Your task to perform on an android device: What is the news today? Image 0: 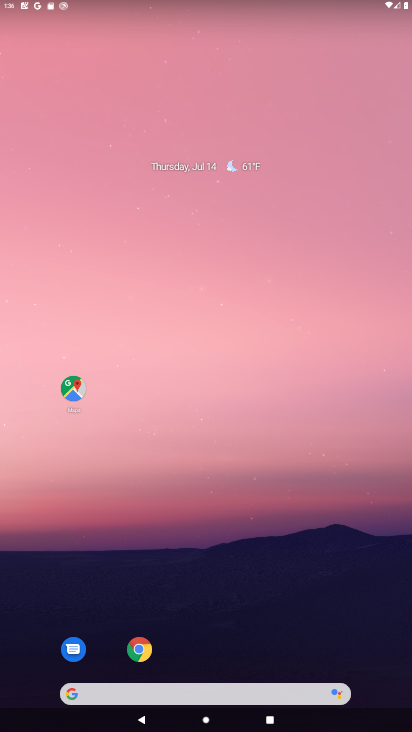
Step 0: drag from (207, 670) to (149, 39)
Your task to perform on an android device: What is the news today? Image 1: 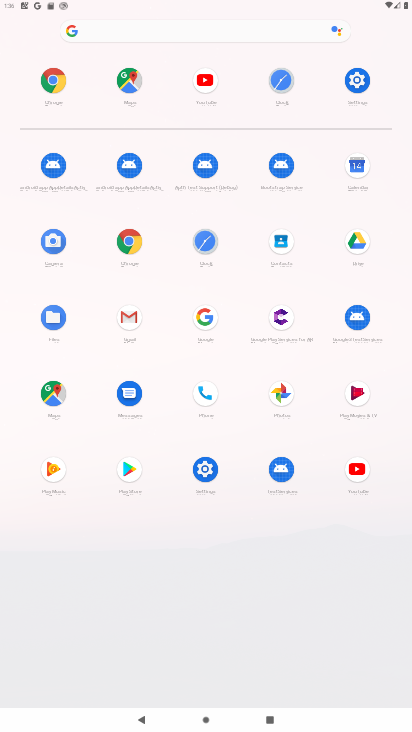
Step 1: click (141, 242)
Your task to perform on an android device: What is the news today? Image 2: 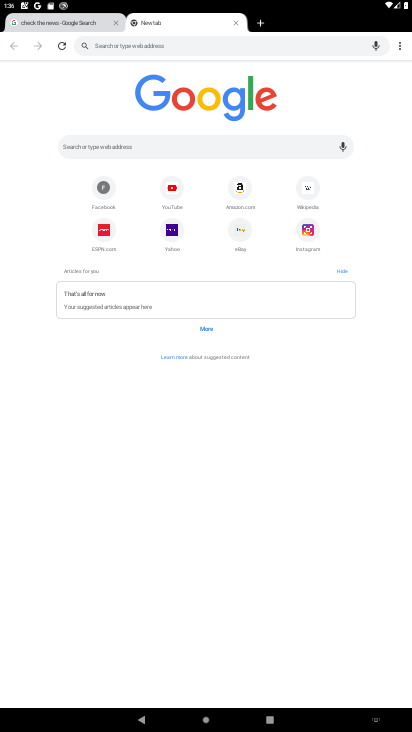
Step 2: type "news today"
Your task to perform on an android device: What is the news today? Image 3: 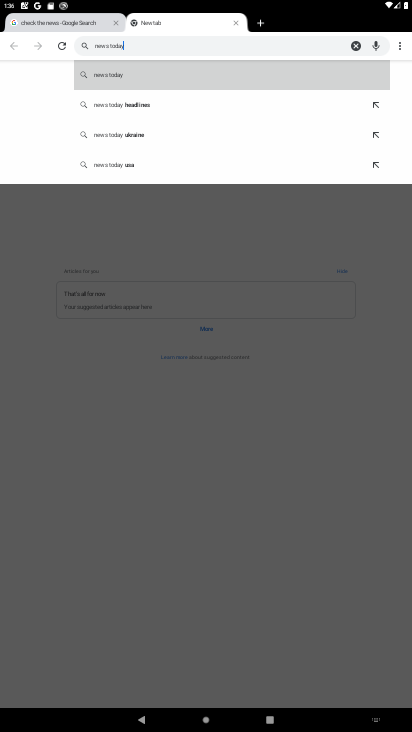
Step 3: click (140, 78)
Your task to perform on an android device: What is the news today? Image 4: 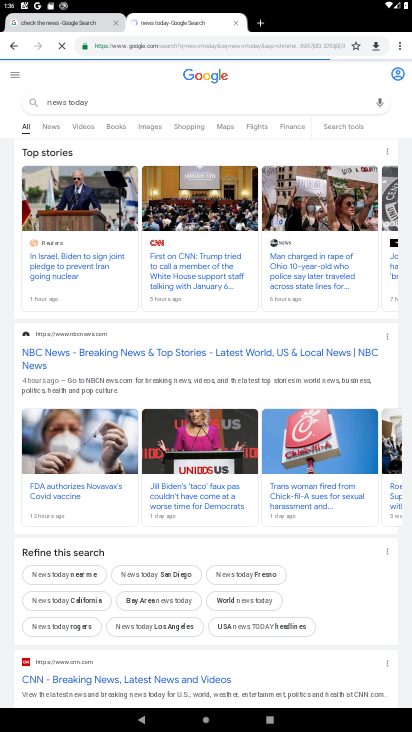
Step 4: click (167, 255)
Your task to perform on an android device: What is the news today? Image 5: 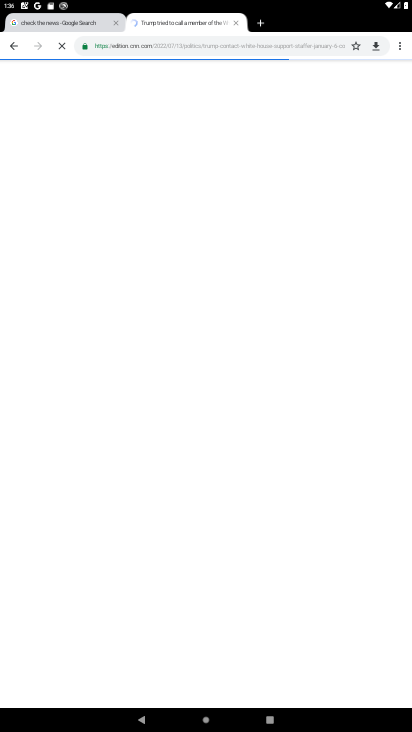
Step 5: task complete